Your task to perform on an android device: Do I have any events today? Image 0: 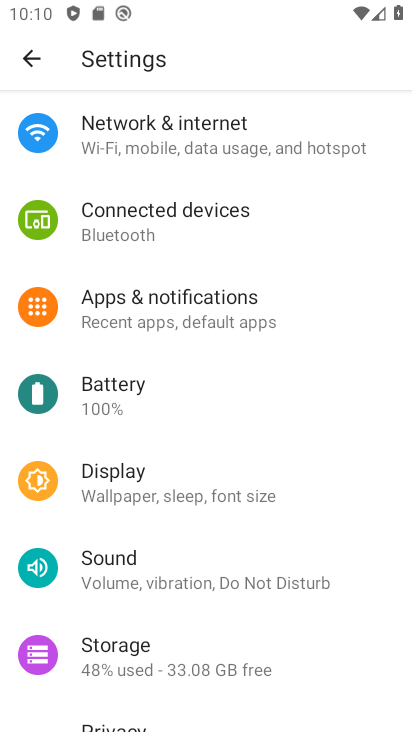
Step 0: press home button
Your task to perform on an android device: Do I have any events today? Image 1: 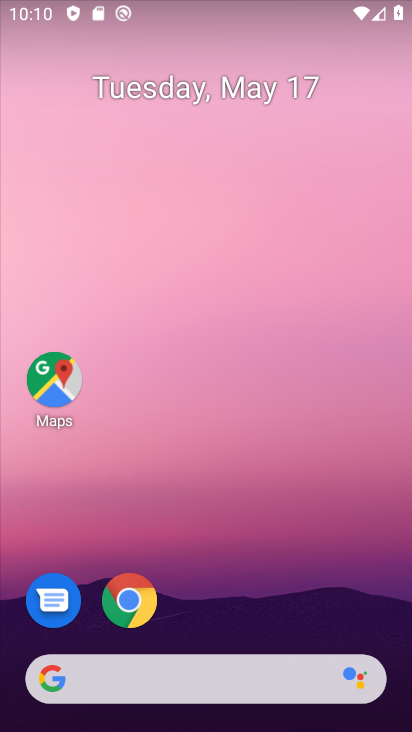
Step 1: drag from (354, 605) to (350, 257)
Your task to perform on an android device: Do I have any events today? Image 2: 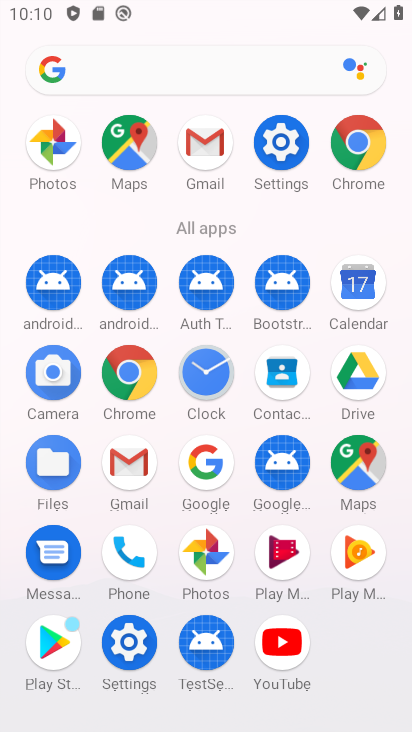
Step 2: click (357, 290)
Your task to perform on an android device: Do I have any events today? Image 3: 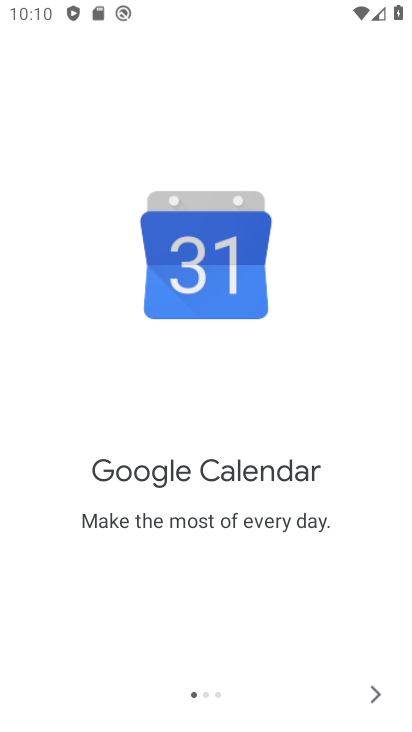
Step 3: click (375, 696)
Your task to perform on an android device: Do I have any events today? Image 4: 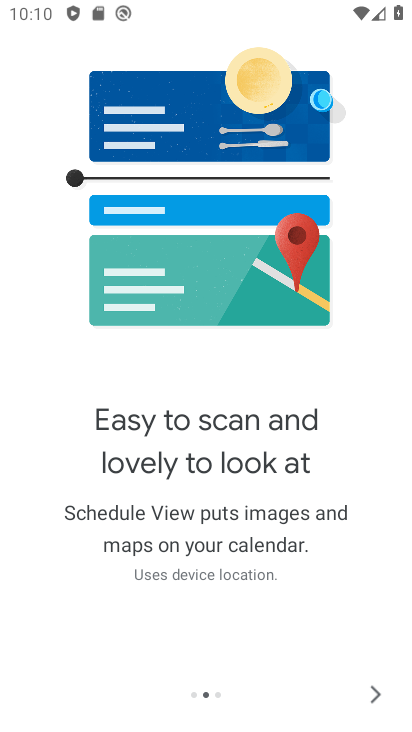
Step 4: click (375, 696)
Your task to perform on an android device: Do I have any events today? Image 5: 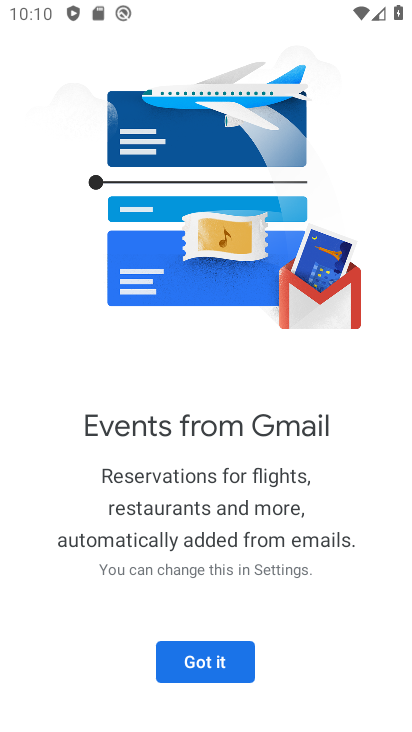
Step 5: click (228, 658)
Your task to perform on an android device: Do I have any events today? Image 6: 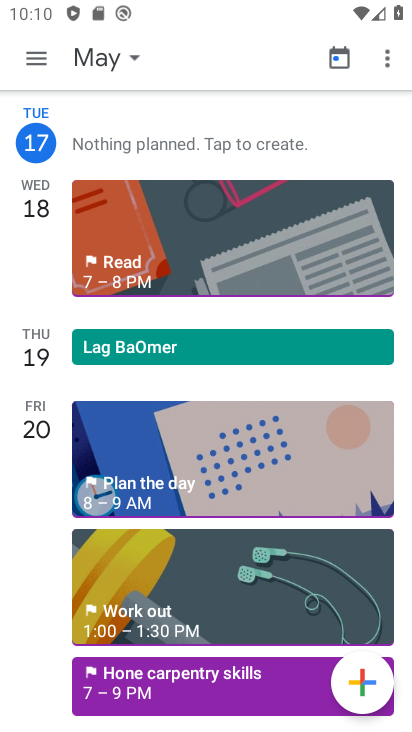
Step 6: click (191, 235)
Your task to perform on an android device: Do I have any events today? Image 7: 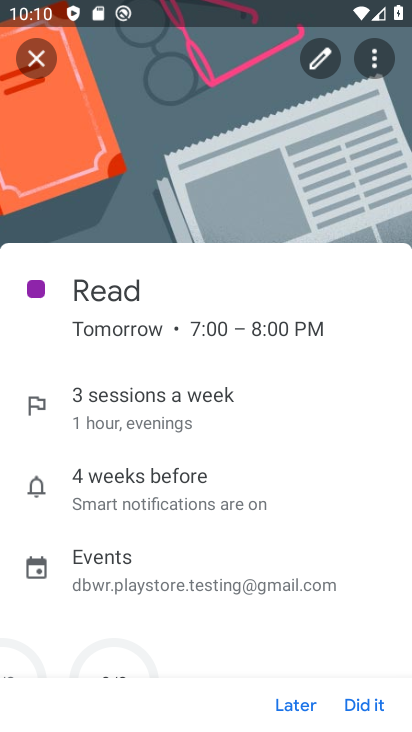
Step 7: task complete